Your task to perform on an android device: turn off sleep mode Image 0: 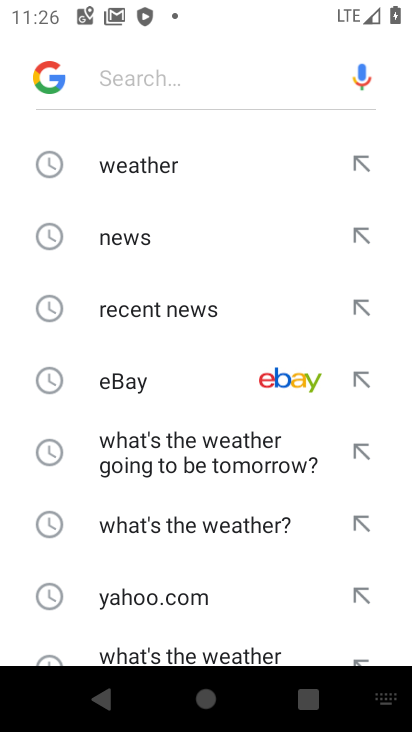
Step 0: press home button
Your task to perform on an android device: turn off sleep mode Image 1: 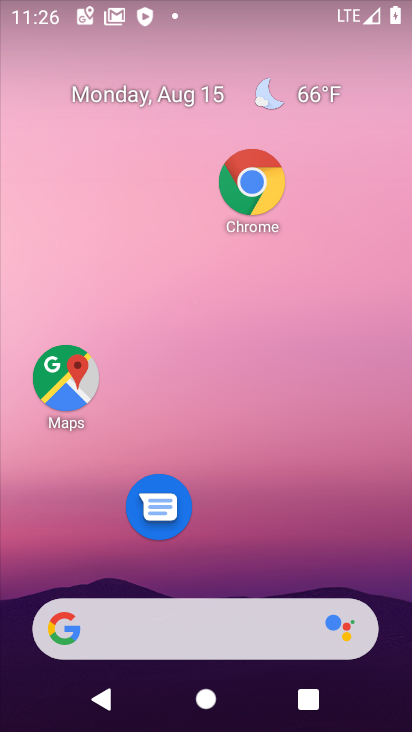
Step 1: drag from (232, 563) to (267, 16)
Your task to perform on an android device: turn off sleep mode Image 2: 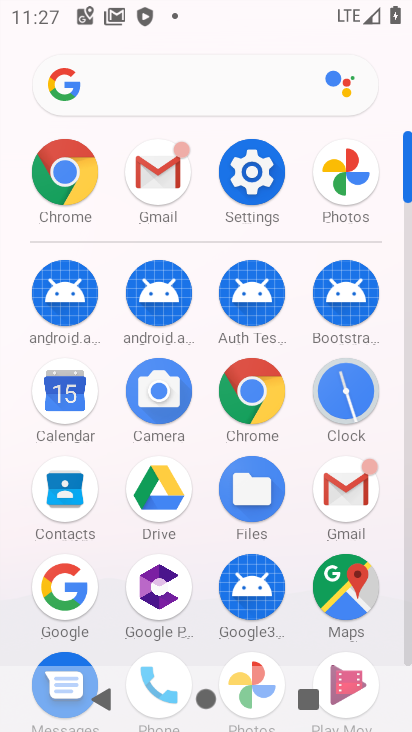
Step 2: click (270, 219)
Your task to perform on an android device: turn off sleep mode Image 3: 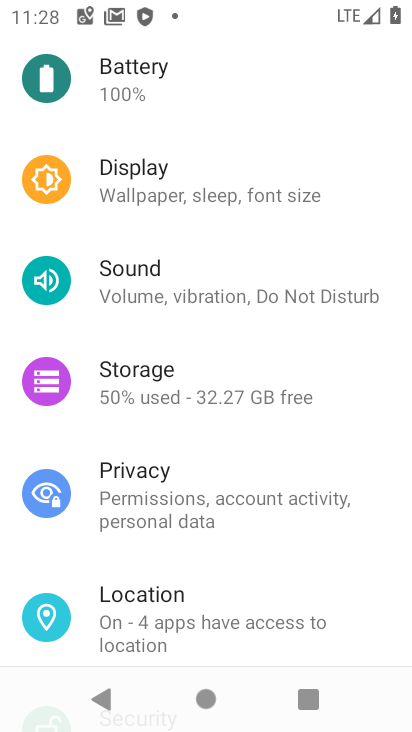
Step 3: task complete